Your task to perform on an android device: What is the recent news? Image 0: 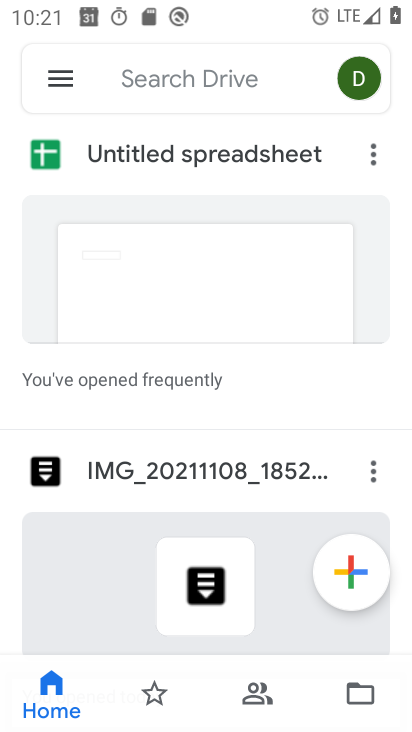
Step 0: press home button
Your task to perform on an android device: What is the recent news? Image 1: 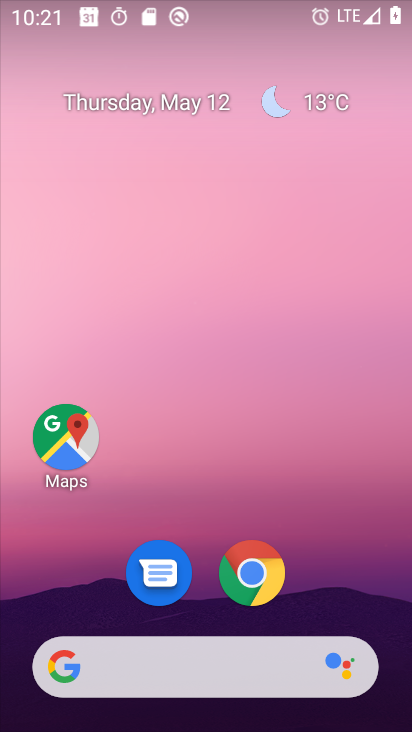
Step 1: drag from (412, 559) to (393, 132)
Your task to perform on an android device: What is the recent news? Image 2: 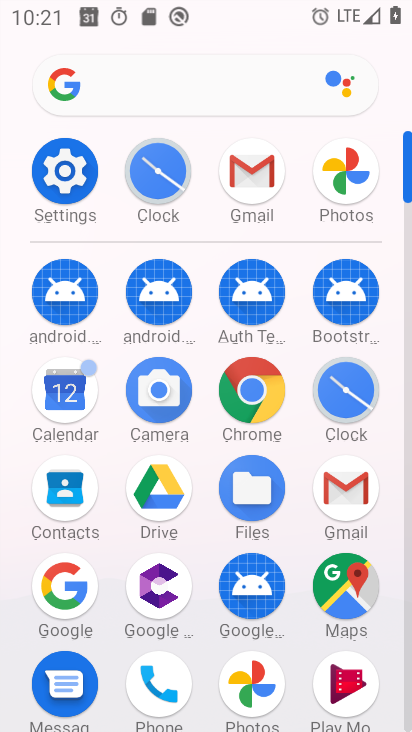
Step 2: click (65, 597)
Your task to perform on an android device: What is the recent news? Image 3: 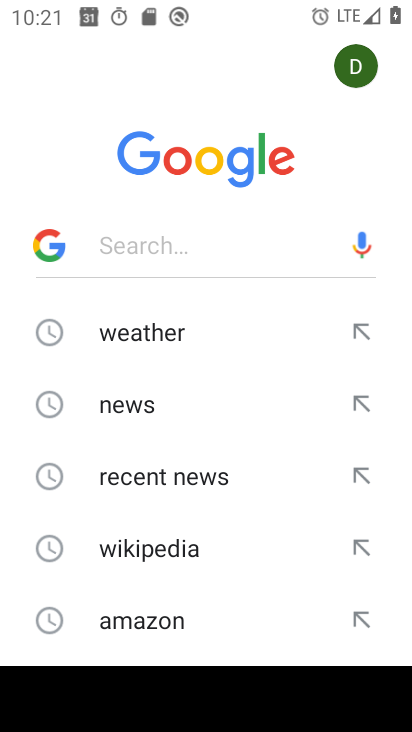
Step 3: click (125, 477)
Your task to perform on an android device: What is the recent news? Image 4: 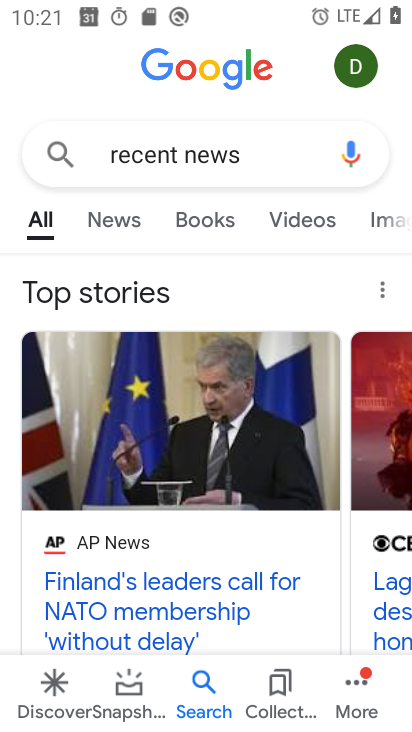
Step 4: task complete